Your task to perform on an android device: delete location history Image 0: 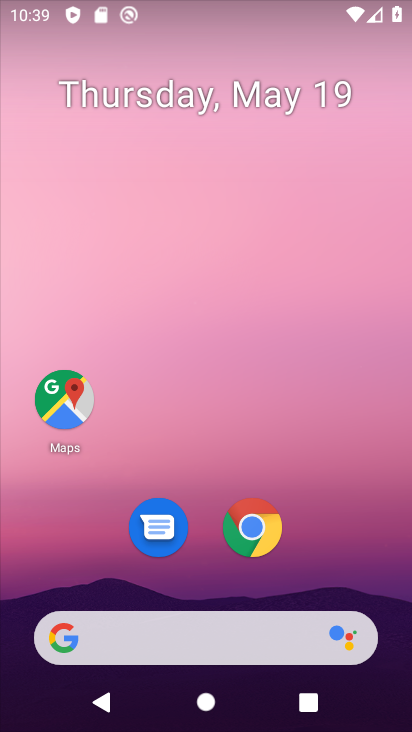
Step 0: drag from (211, 558) to (263, 95)
Your task to perform on an android device: delete location history Image 1: 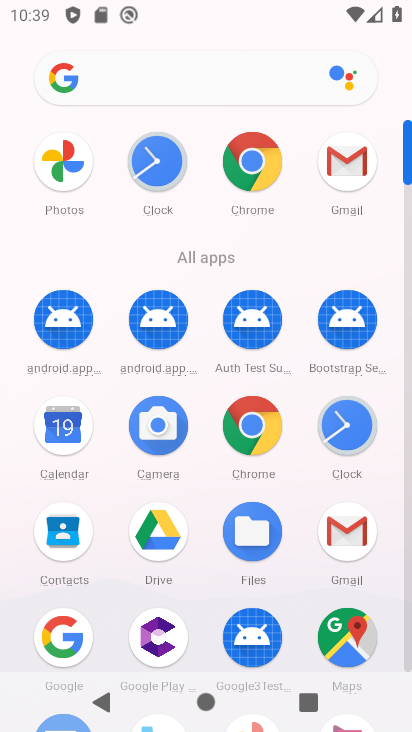
Step 1: click (334, 618)
Your task to perform on an android device: delete location history Image 2: 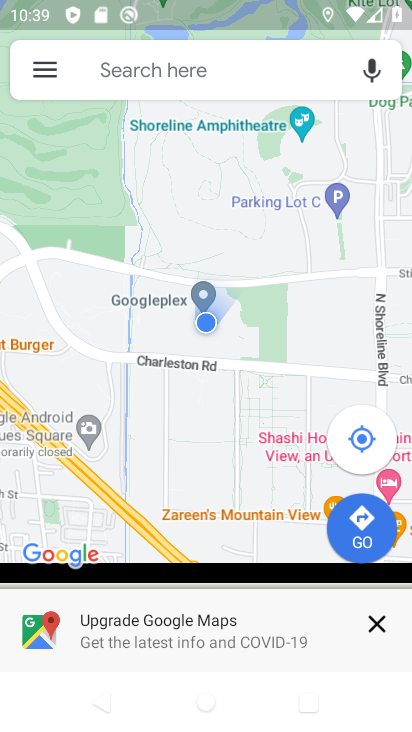
Step 2: click (37, 81)
Your task to perform on an android device: delete location history Image 3: 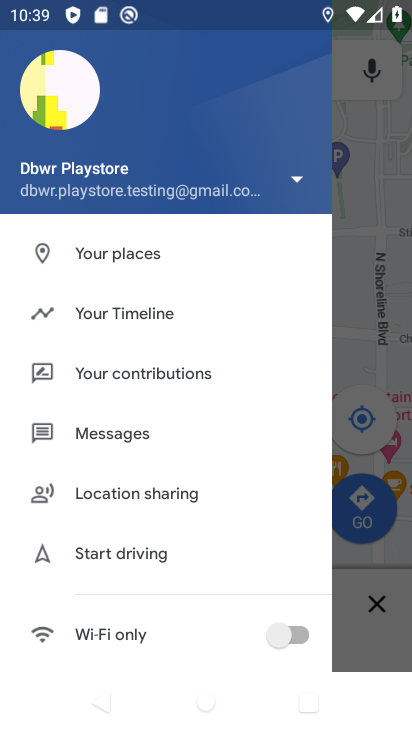
Step 3: click (138, 315)
Your task to perform on an android device: delete location history Image 4: 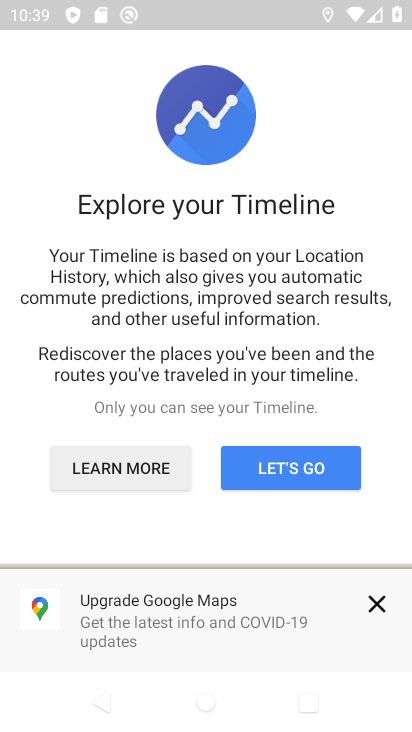
Step 4: click (370, 601)
Your task to perform on an android device: delete location history Image 5: 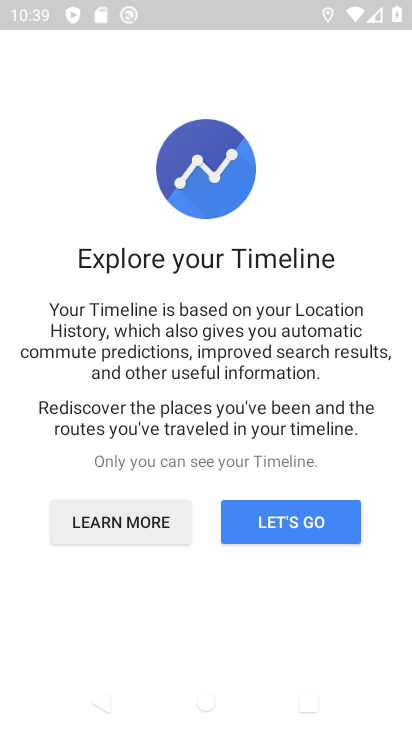
Step 5: click (314, 514)
Your task to perform on an android device: delete location history Image 6: 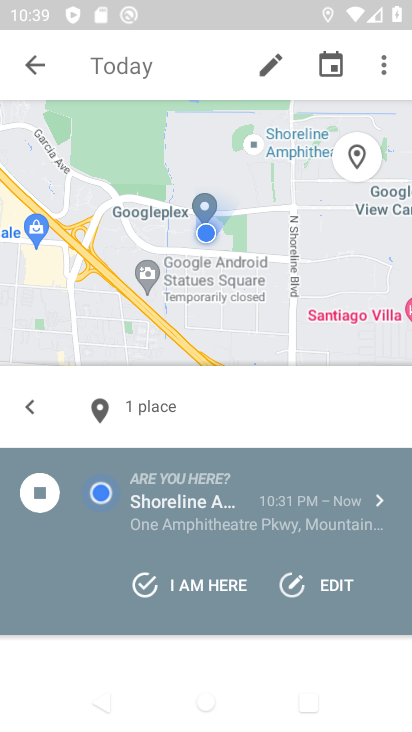
Step 6: click (388, 76)
Your task to perform on an android device: delete location history Image 7: 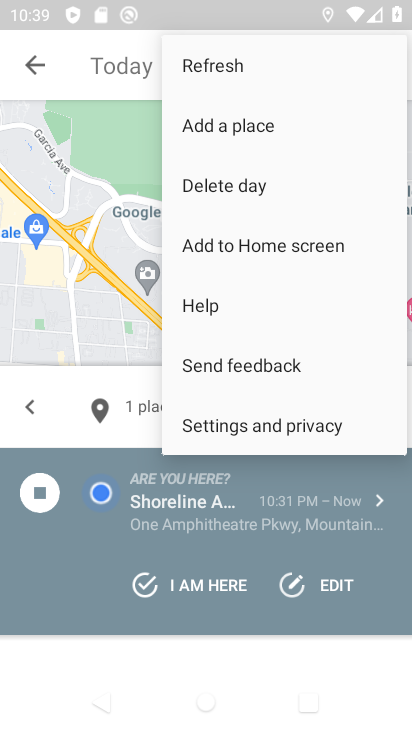
Step 7: click (228, 423)
Your task to perform on an android device: delete location history Image 8: 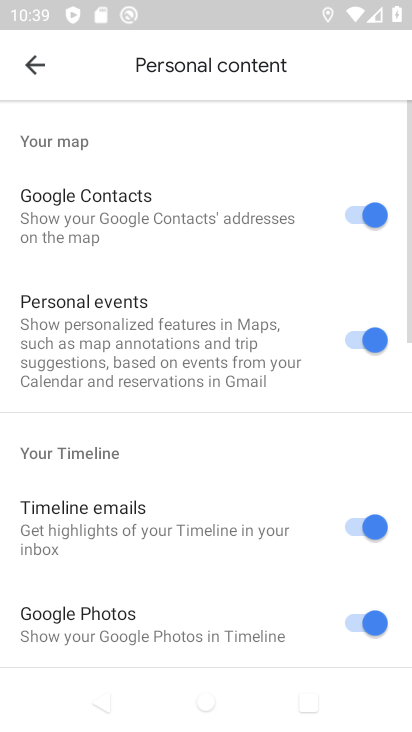
Step 8: drag from (163, 557) to (208, 191)
Your task to perform on an android device: delete location history Image 9: 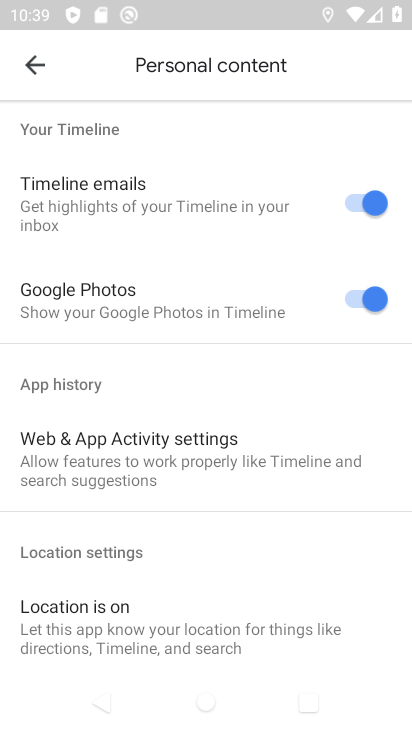
Step 9: drag from (179, 559) to (224, 196)
Your task to perform on an android device: delete location history Image 10: 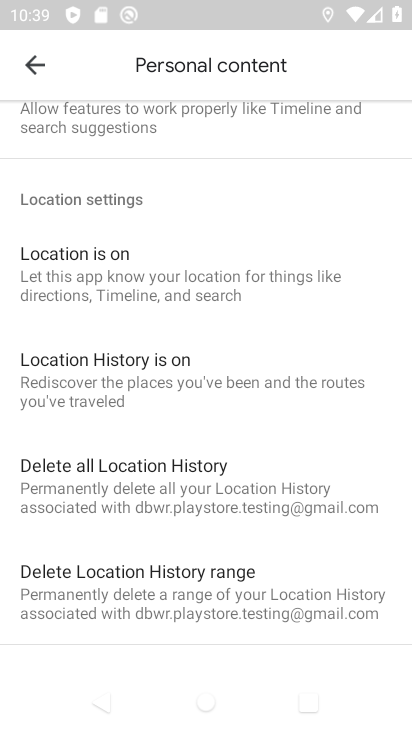
Step 10: click (184, 472)
Your task to perform on an android device: delete location history Image 11: 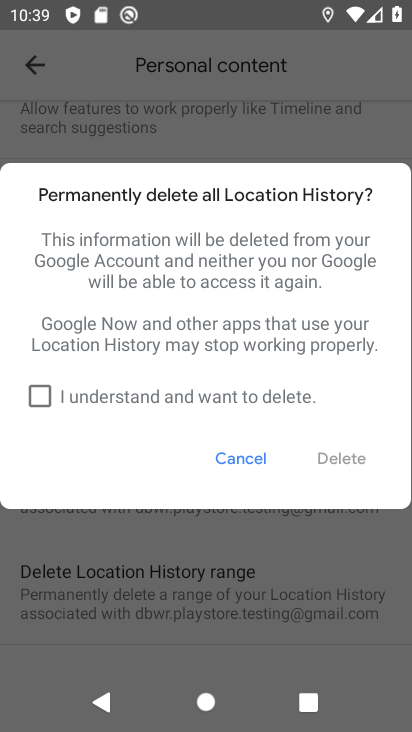
Step 11: click (115, 393)
Your task to perform on an android device: delete location history Image 12: 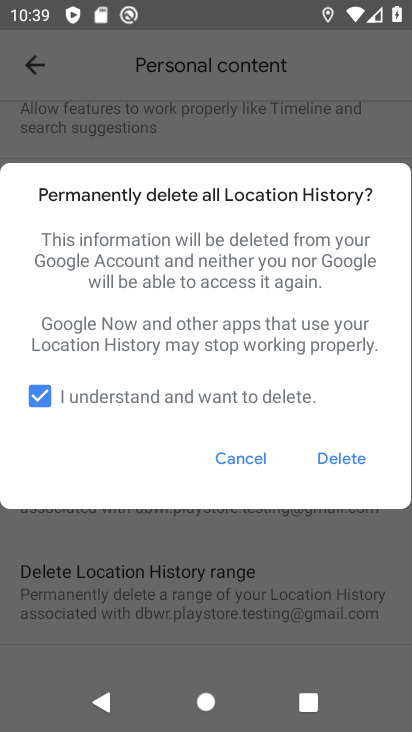
Step 12: click (336, 455)
Your task to perform on an android device: delete location history Image 13: 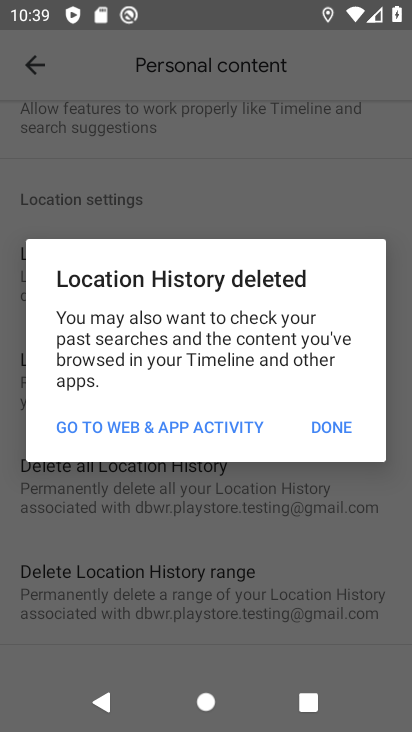
Step 13: click (351, 427)
Your task to perform on an android device: delete location history Image 14: 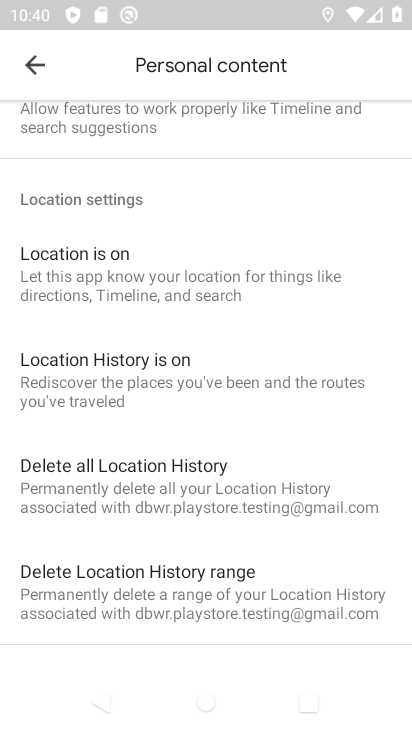
Step 14: task complete